Your task to perform on an android device: turn off javascript in the chrome app Image 0: 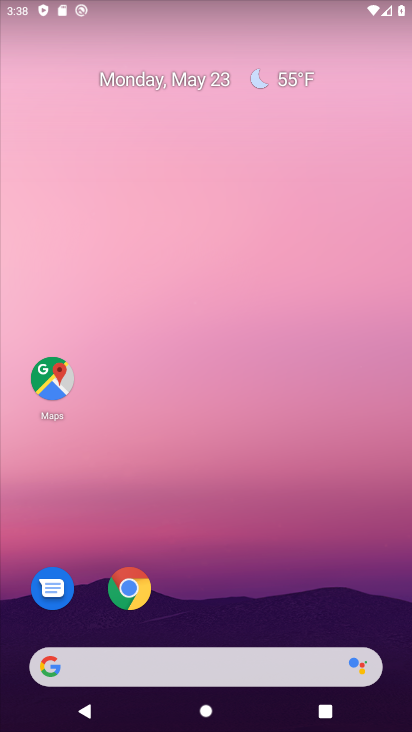
Step 0: click (135, 588)
Your task to perform on an android device: turn off javascript in the chrome app Image 1: 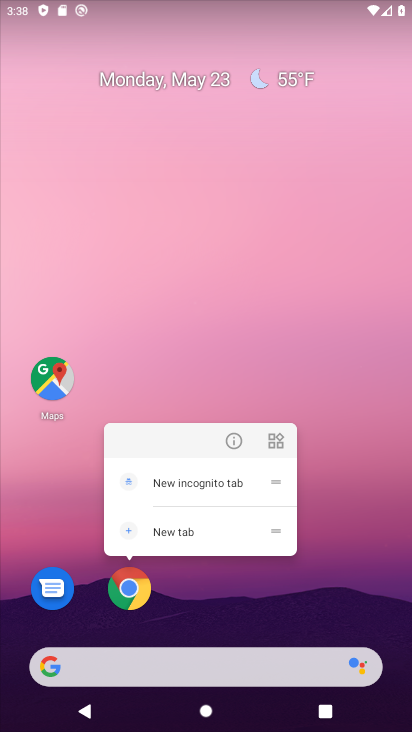
Step 1: click (135, 588)
Your task to perform on an android device: turn off javascript in the chrome app Image 2: 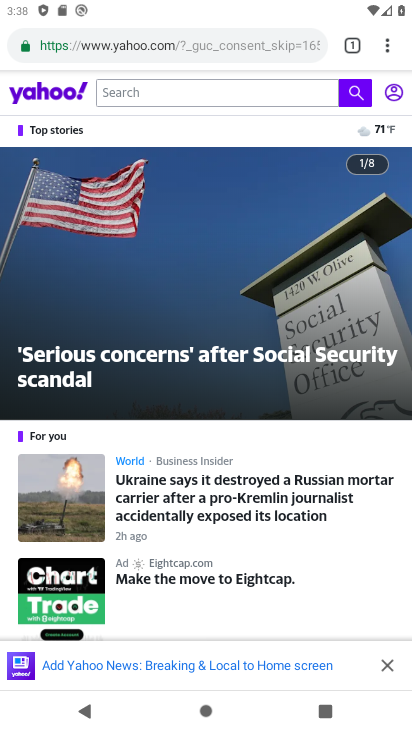
Step 2: click (378, 45)
Your task to perform on an android device: turn off javascript in the chrome app Image 3: 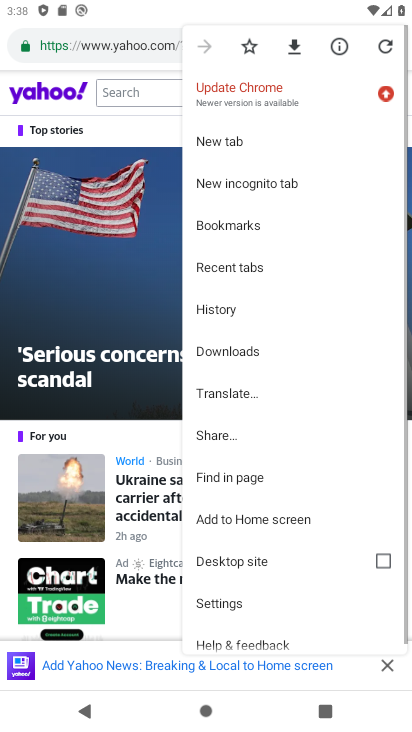
Step 3: click (222, 604)
Your task to perform on an android device: turn off javascript in the chrome app Image 4: 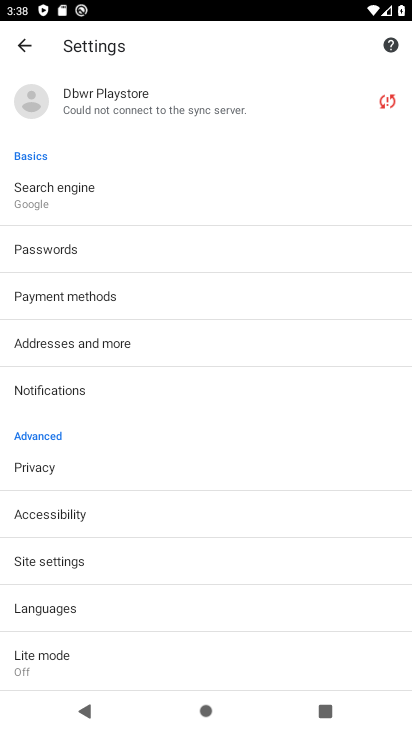
Step 4: click (54, 562)
Your task to perform on an android device: turn off javascript in the chrome app Image 5: 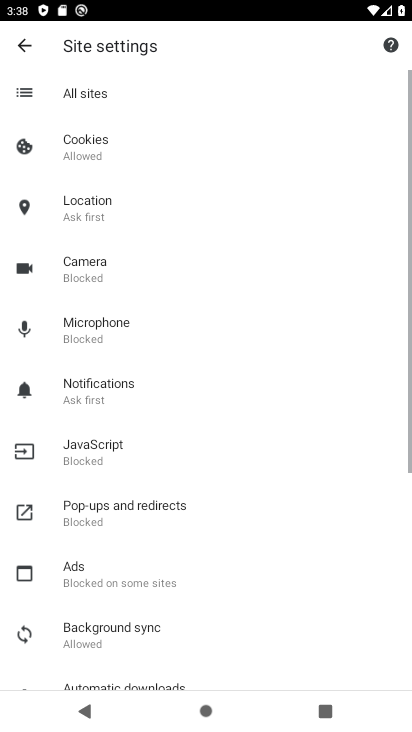
Step 5: click (123, 442)
Your task to perform on an android device: turn off javascript in the chrome app Image 6: 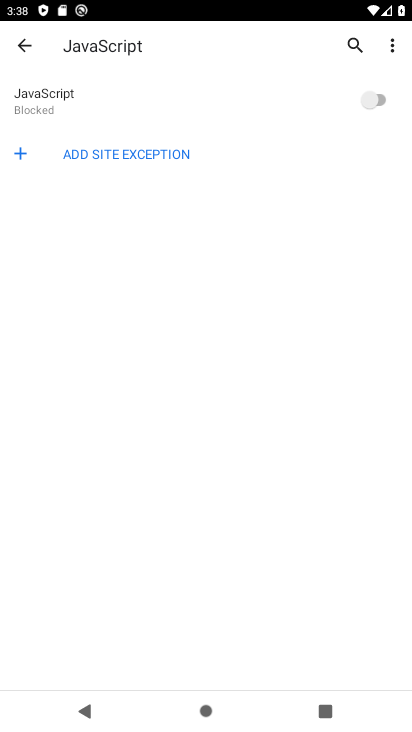
Step 6: task complete